Your task to perform on an android device: Open location settings Image 0: 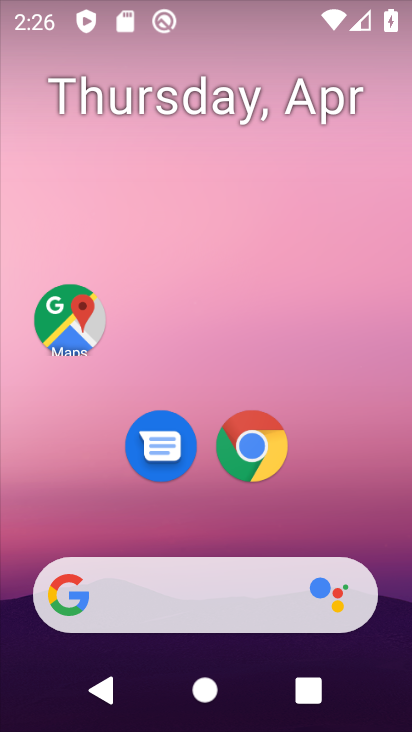
Step 0: drag from (268, 636) to (251, 205)
Your task to perform on an android device: Open location settings Image 1: 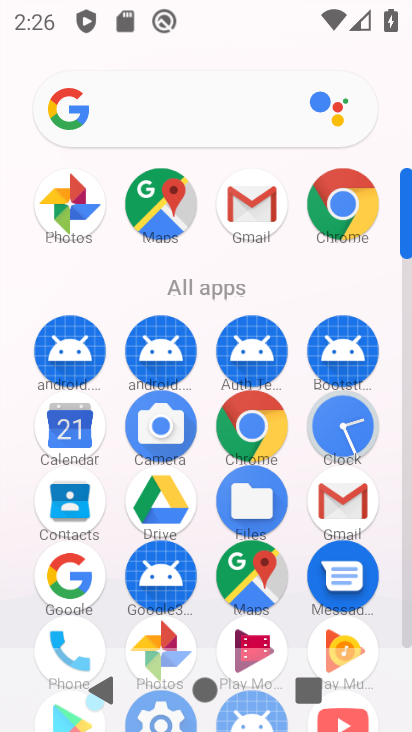
Step 1: drag from (115, 403) to (78, 265)
Your task to perform on an android device: Open location settings Image 2: 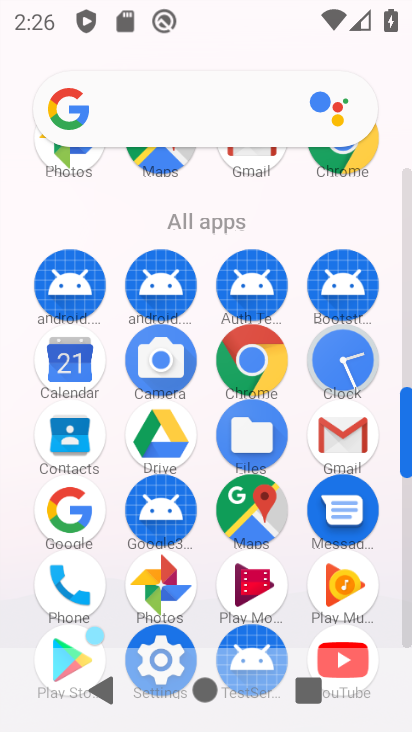
Step 2: click (158, 631)
Your task to perform on an android device: Open location settings Image 3: 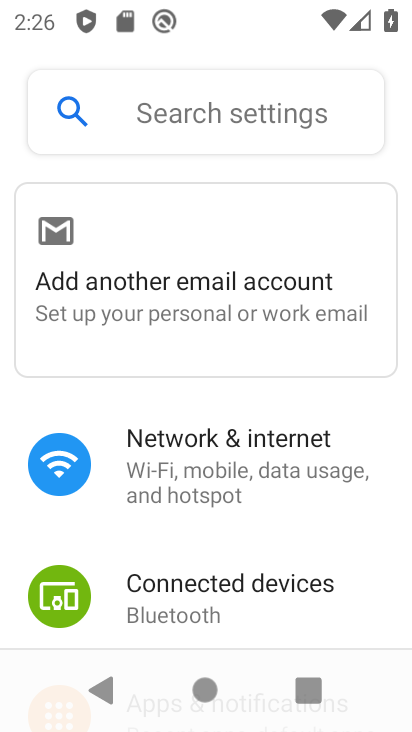
Step 3: click (208, 110)
Your task to perform on an android device: Open location settings Image 4: 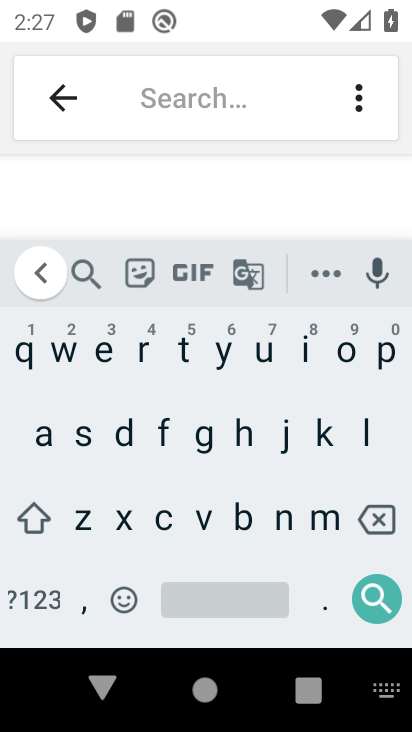
Step 4: click (363, 431)
Your task to perform on an android device: Open location settings Image 5: 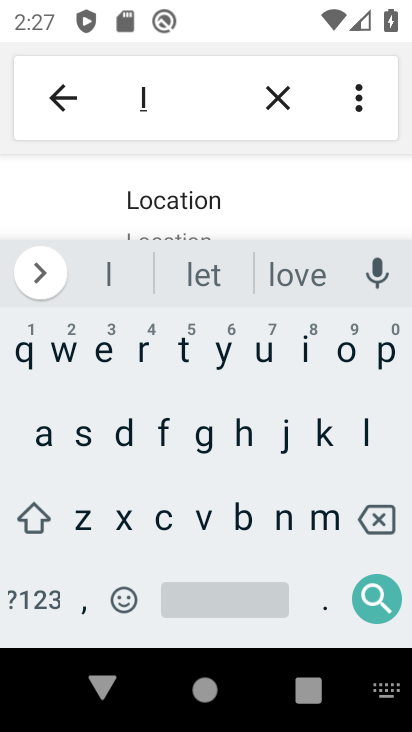
Step 5: click (349, 362)
Your task to perform on an android device: Open location settings Image 6: 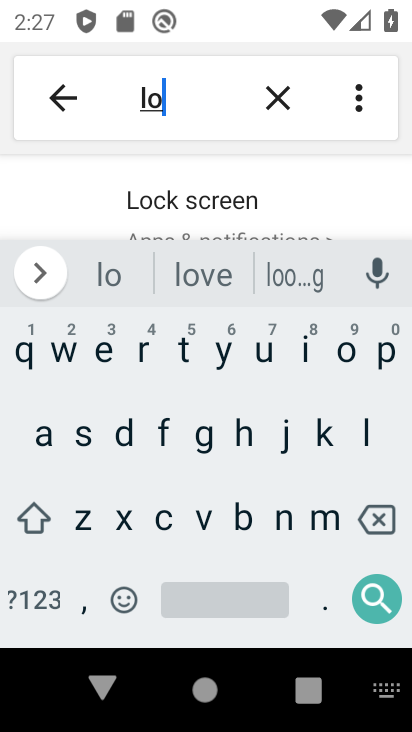
Step 6: click (159, 516)
Your task to perform on an android device: Open location settings Image 7: 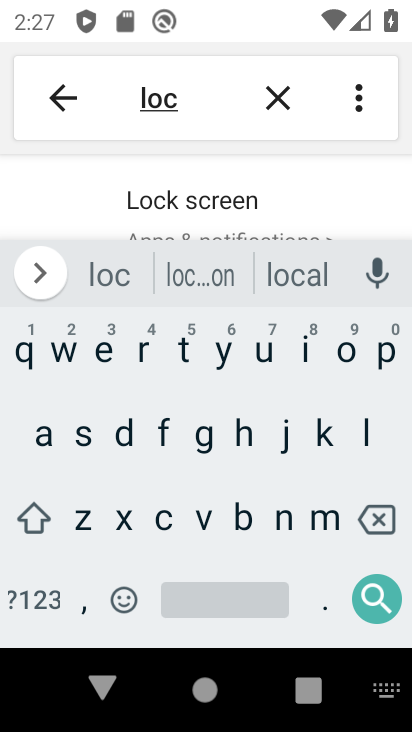
Step 7: click (50, 430)
Your task to perform on an android device: Open location settings Image 8: 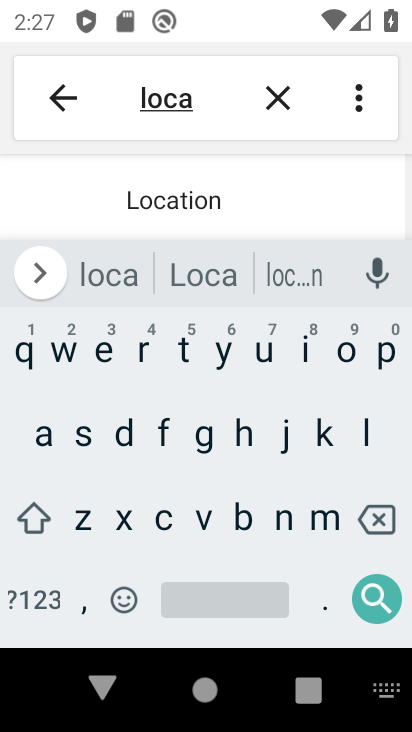
Step 8: drag from (228, 206) to (213, 145)
Your task to perform on an android device: Open location settings Image 9: 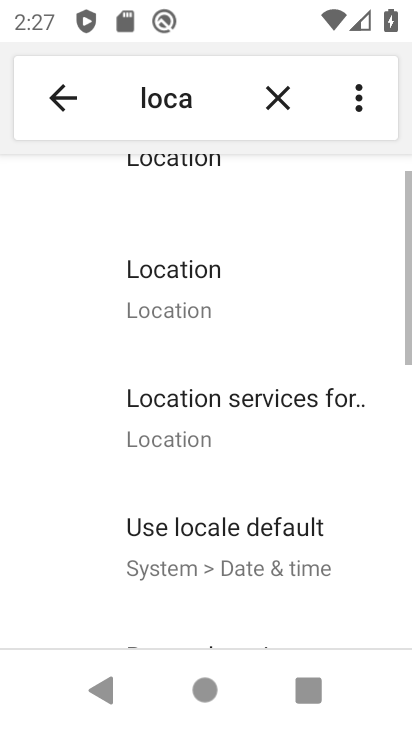
Step 9: click (195, 286)
Your task to perform on an android device: Open location settings Image 10: 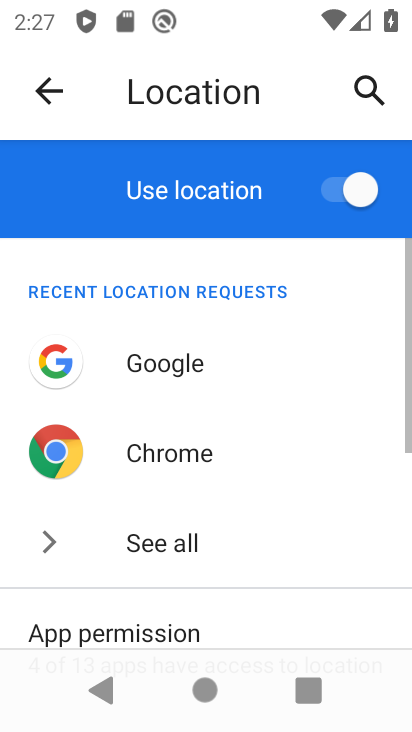
Step 10: task complete